Your task to perform on an android device: Go to internet settings Image 0: 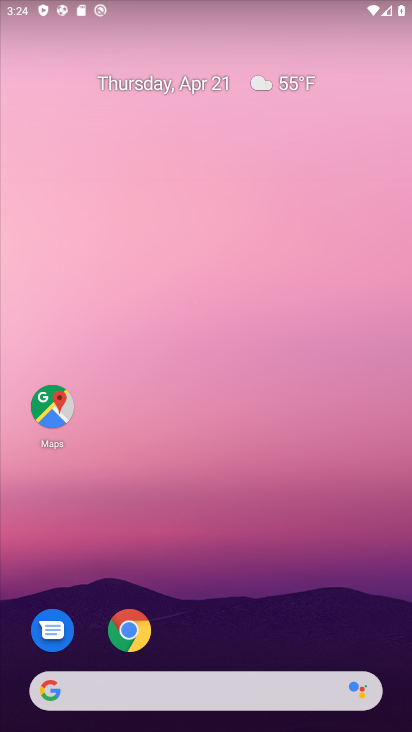
Step 0: drag from (363, 627) to (371, 33)
Your task to perform on an android device: Go to internet settings Image 1: 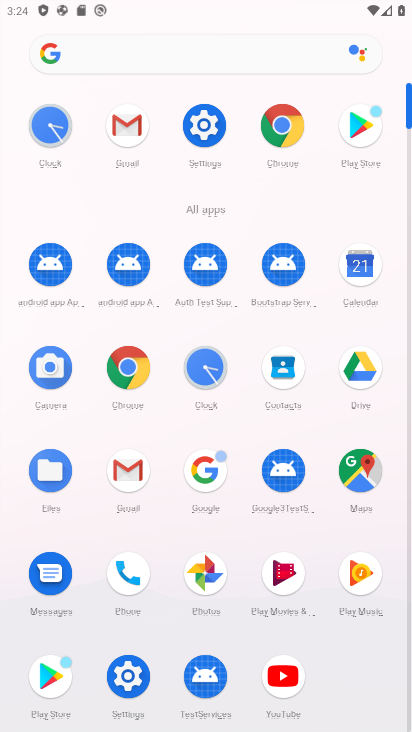
Step 1: click (202, 129)
Your task to perform on an android device: Go to internet settings Image 2: 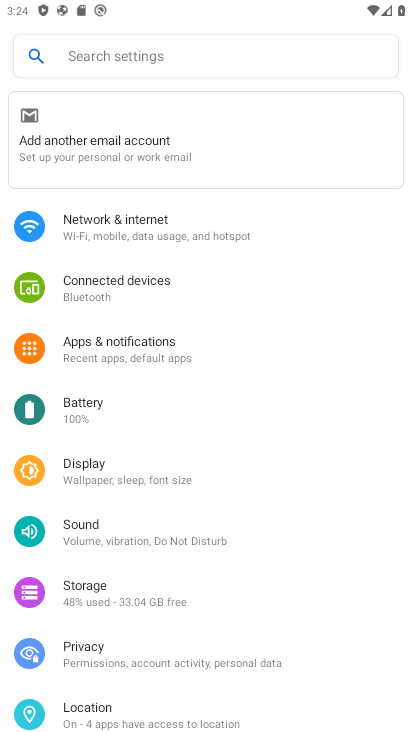
Step 2: click (150, 233)
Your task to perform on an android device: Go to internet settings Image 3: 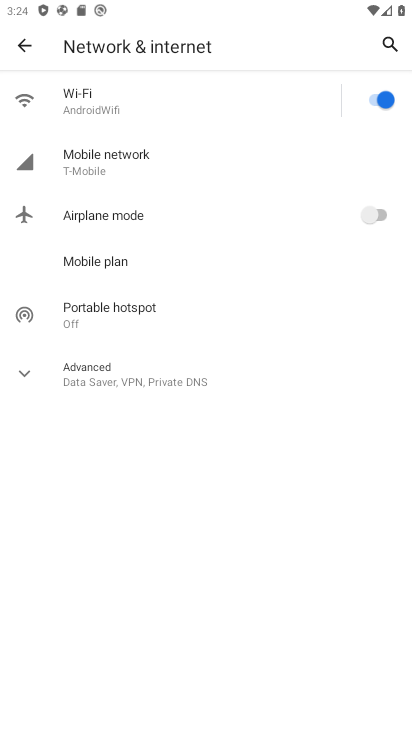
Step 3: click (22, 378)
Your task to perform on an android device: Go to internet settings Image 4: 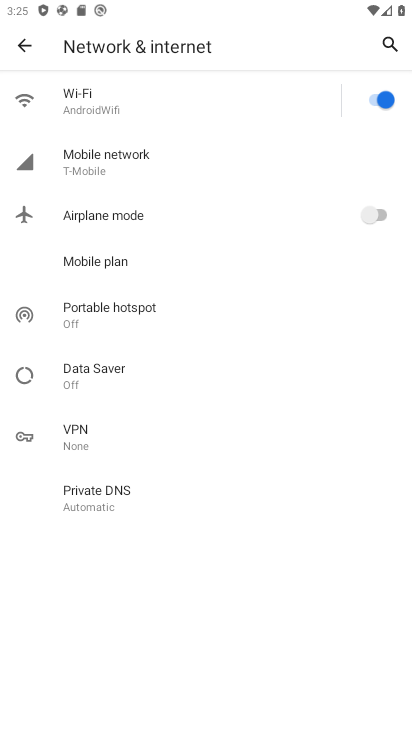
Step 4: task complete